Your task to perform on an android device: all mails in gmail Image 0: 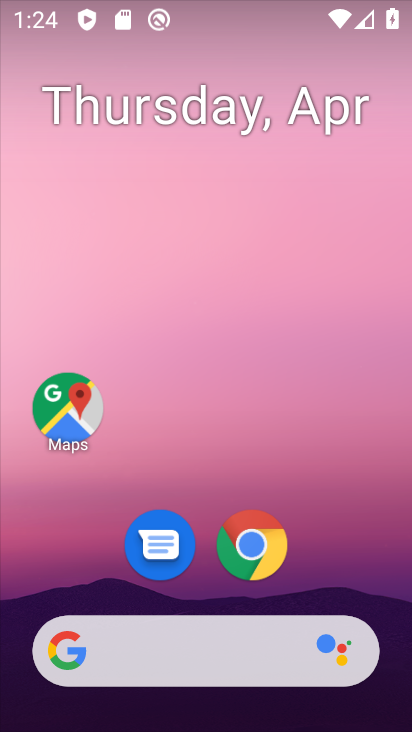
Step 0: drag from (395, 591) to (364, 6)
Your task to perform on an android device: all mails in gmail Image 1: 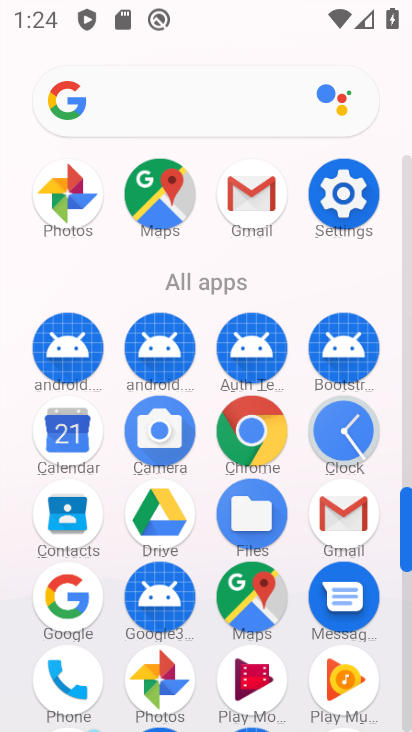
Step 1: click (262, 186)
Your task to perform on an android device: all mails in gmail Image 2: 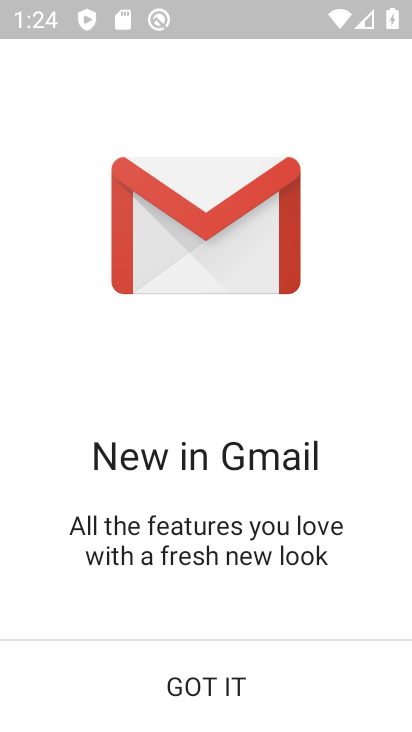
Step 2: click (207, 694)
Your task to perform on an android device: all mails in gmail Image 3: 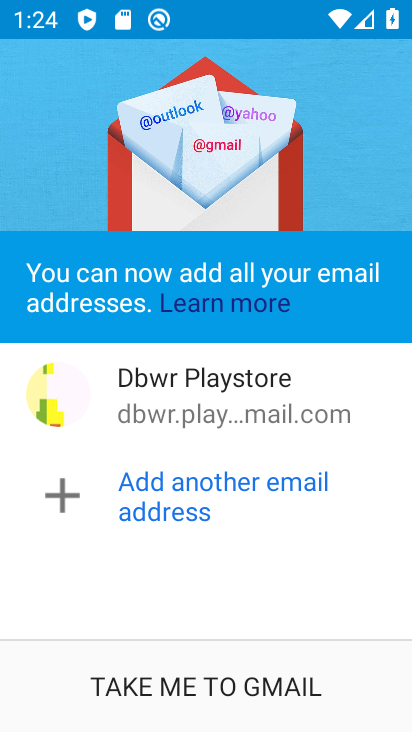
Step 3: click (207, 694)
Your task to perform on an android device: all mails in gmail Image 4: 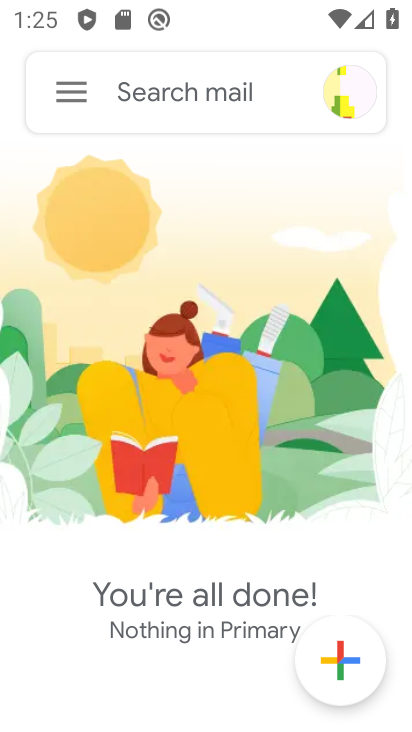
Step 4: click (71, 94)
Your task to perform on an android device: all mails in gmail Image 5: 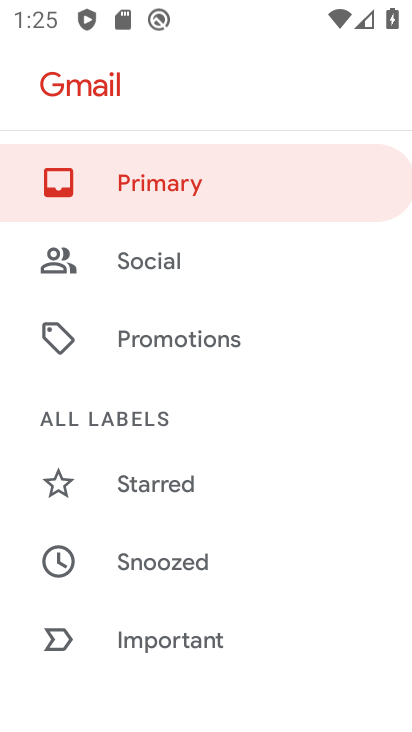
Step 5: drag from (191, 557) to (199, 237)
Your task to perform on an android device: all mails in gmail Image 6: 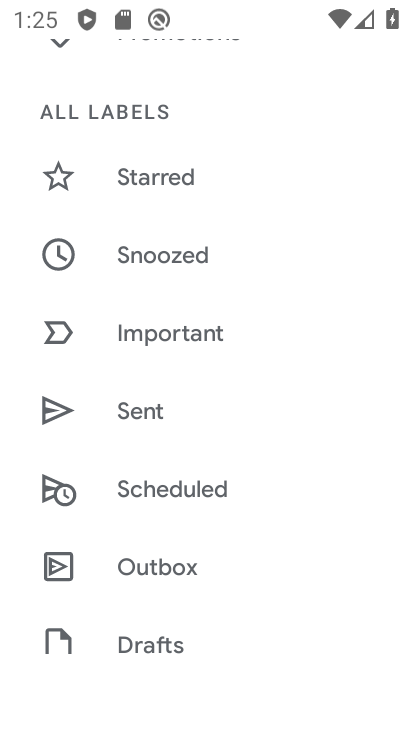
Step 6: drag from (172, 611) to (182, 319)
Your task to perform on an android device: all mails in gmail Image 7: 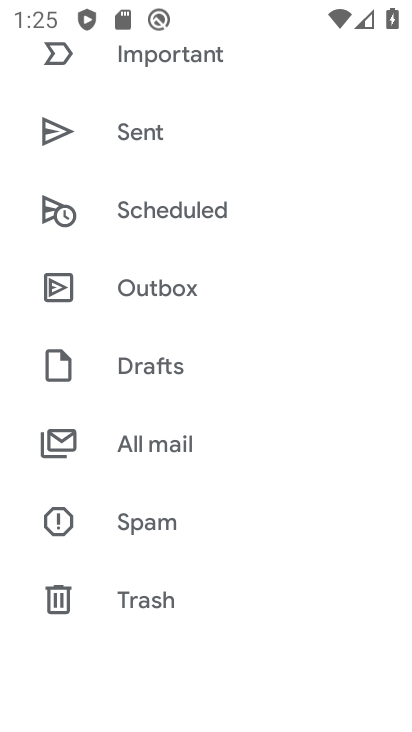
Step 7: click (150, 450)
Your task to perform on an android device: all mails in gmail Image 8: 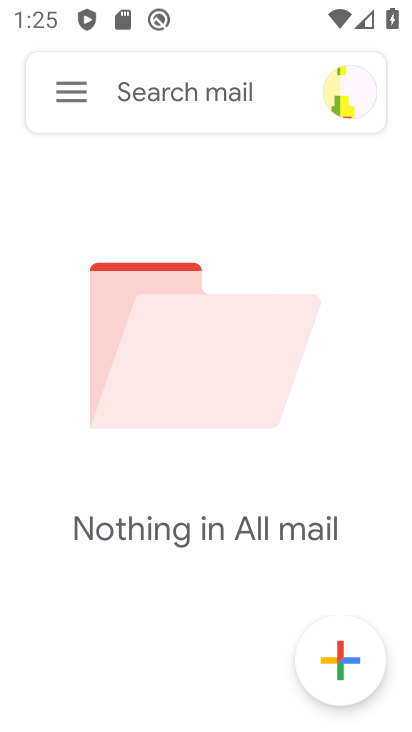
Step 8: task complete